Your task to perform on an android device: Open calendar and show me the third week of next month Image 0: 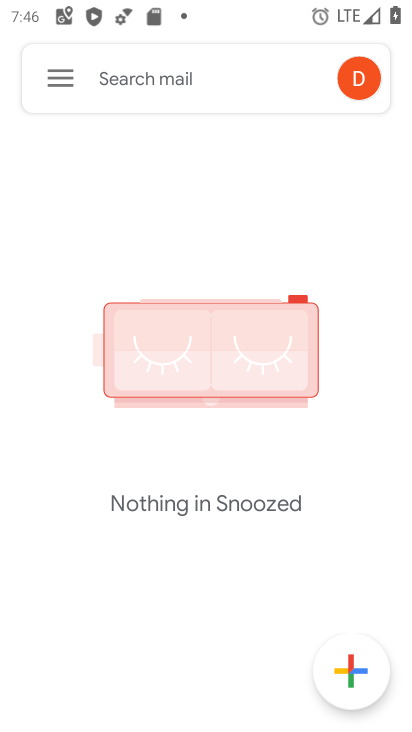
Step 0: press home button
Your task to perform on an android device: Open calendar and show me the third week of next month Image 1: 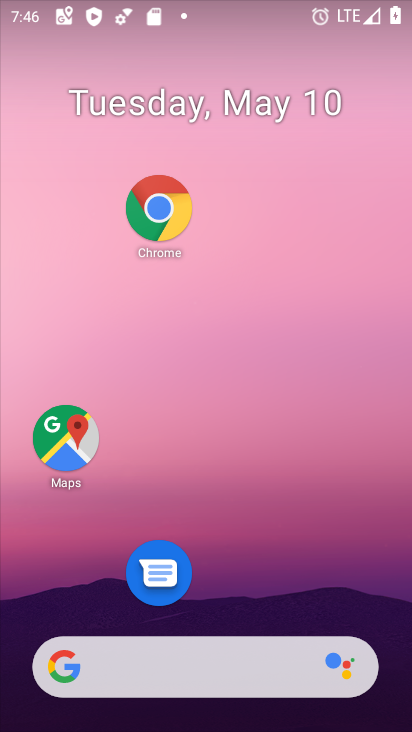
Step 1: drag from (329, 700) to (335, 45)
Your task to perform on an android device: Open calendar and show me the third week of next month Image 2: 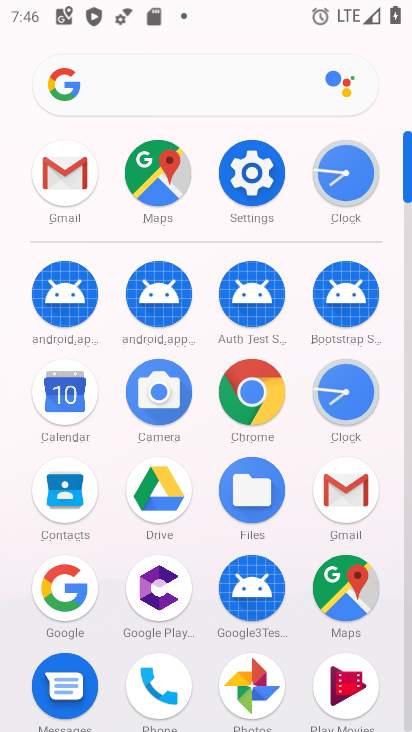
Step 2: click (71, 394)
Your task to perform on an android device: Open calendar and show me the third week of next month Image 3: 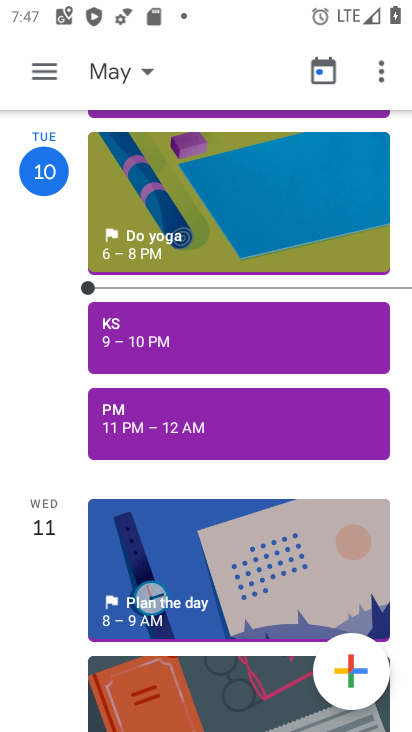
Step 3: click (42, 79)
Your task to perform on an android device: Open calendar and show me the third week of next month Image 4: 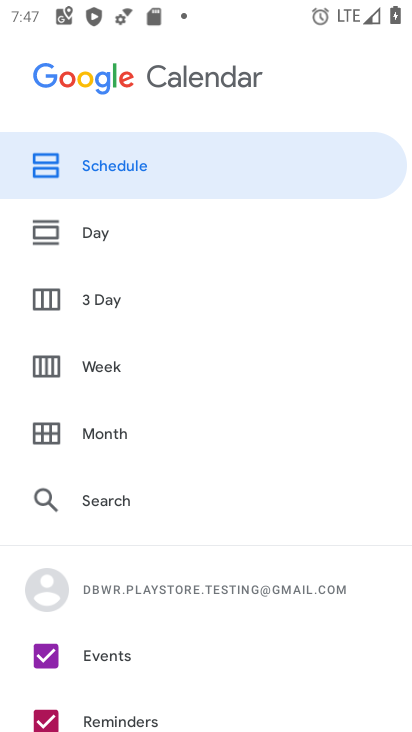
Step 4: click (116, 445)
Your task to perform on an android device: Open calendar and show me the third week of next month Image 5: 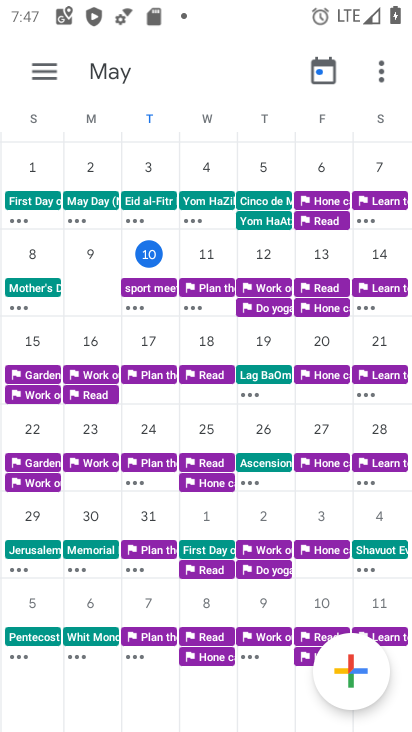
Step 5: drag from (358, 347) to (17, 605)
Your task to perform on an android device: Open calendar and show me the third week of next month Image 6: 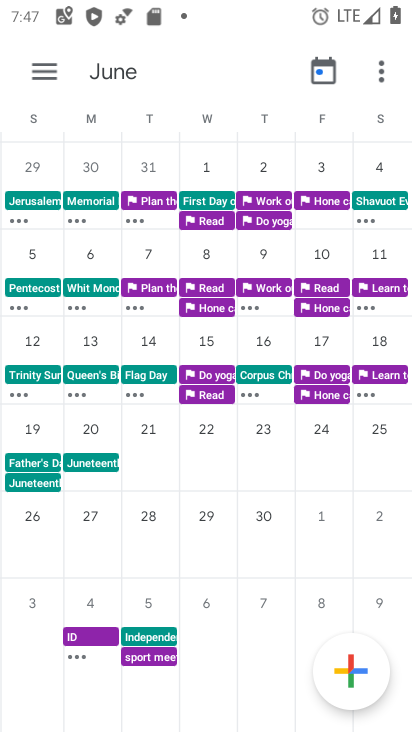
Step 6: click (85, 371)
Your task to perform on an android device: Open calendar and show me the third week of next month Image 7: 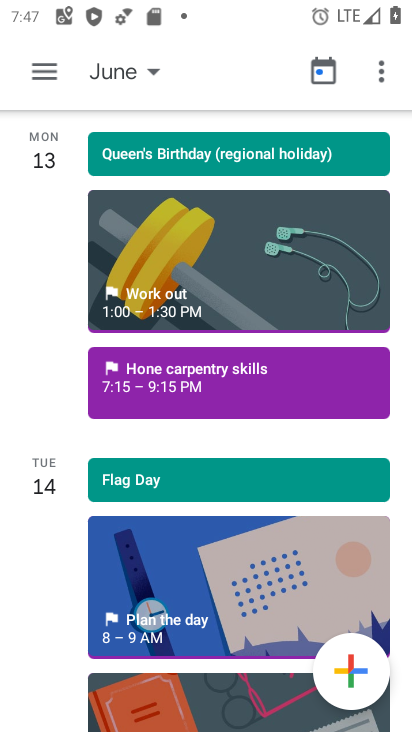
Step 7: task complete